Your task to perform on an android device: remove spam from my inbox in the gmail app Image 0: 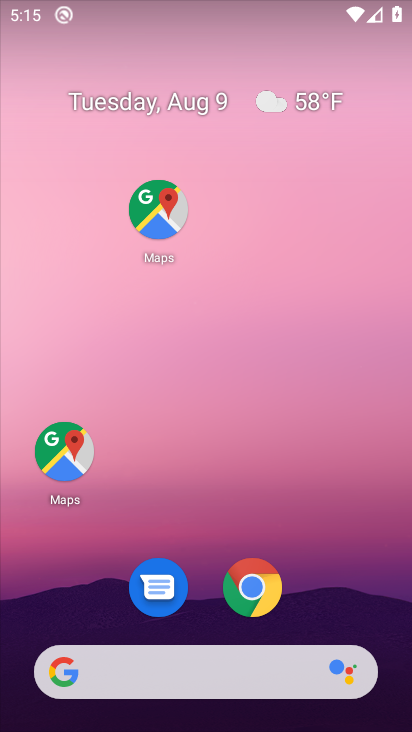
Step 0: drag from (183, 427) to (136, 184)
Your task to perform on an android device: remove spam from my inbox in the gmail app Image 1: 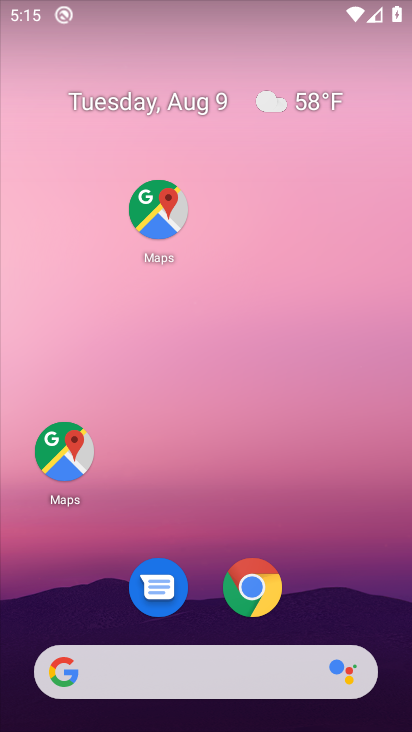
Step 1: drag from (155, 684) to (95, 193)
Your task to perform on an android device: remove spam from my inbox in the gmail app Image 2: 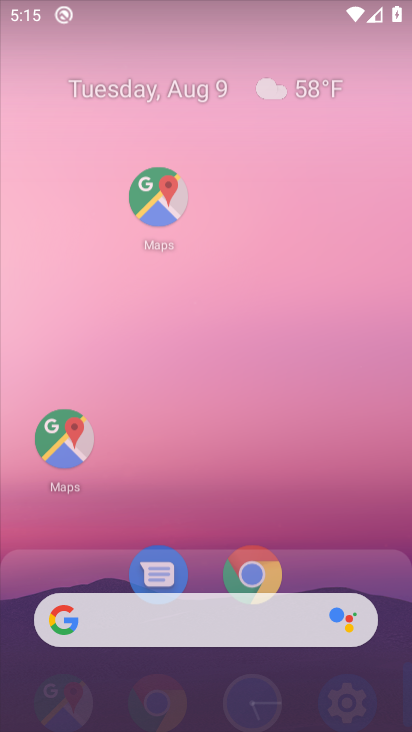
Step 2: drag from (196, 590) to (186, 172)
Your task to perform on an android device: remove spam from my inbox in the gmail app Image 3: 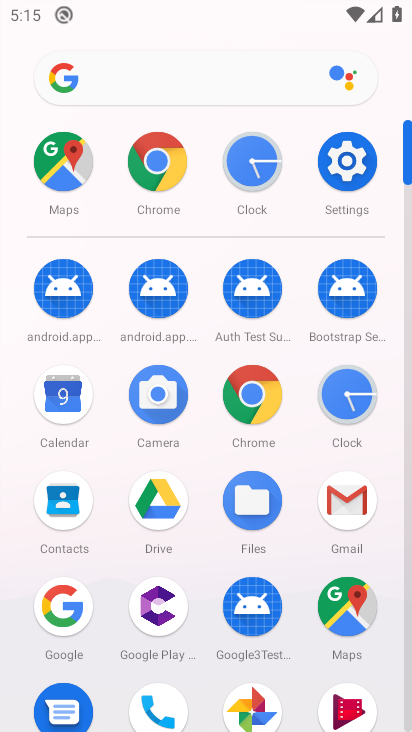
Step 3: click (353, 497)
Your task to perform on an android device: remove spam from my inbox in the gmail app Image 4: 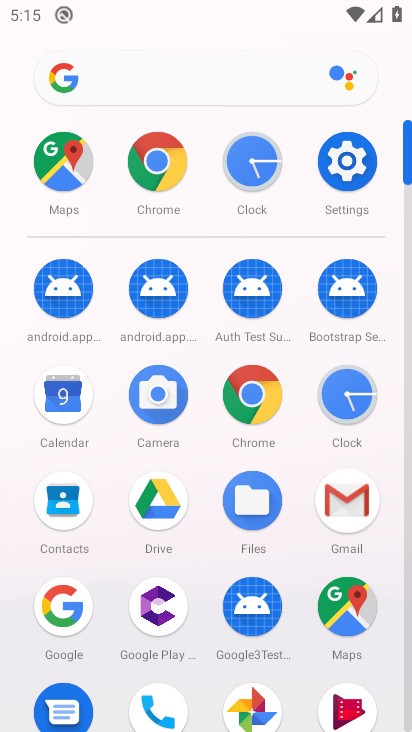
Step 4: click (356, 497)
Your task to perform on an android device: remove spam from my inbox in the gmail app Image 5: 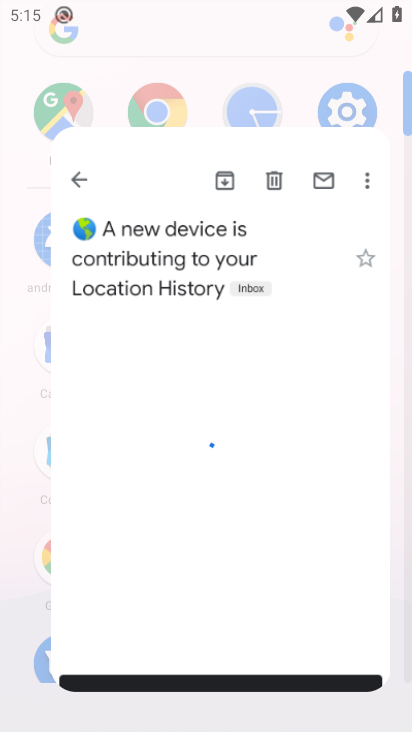
Step 5: click (356, 497)
Your task to perform on an android device: remove spam from my inbox in the gmail app Image 6: 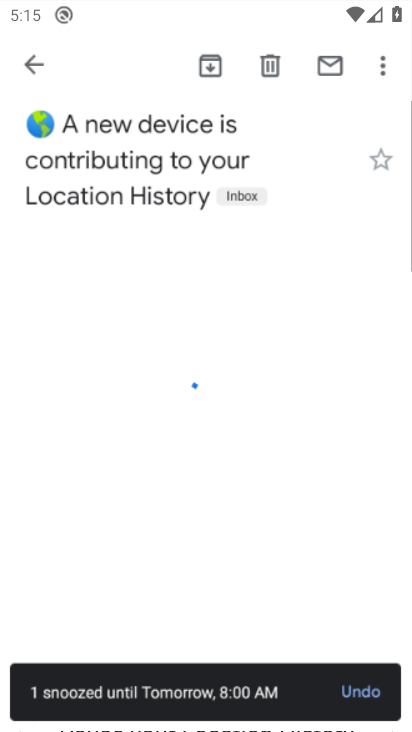
Step 6: click (356, 497)
Your task to perform on an android device: remove spam from my inbox in the gmail app Image 7: 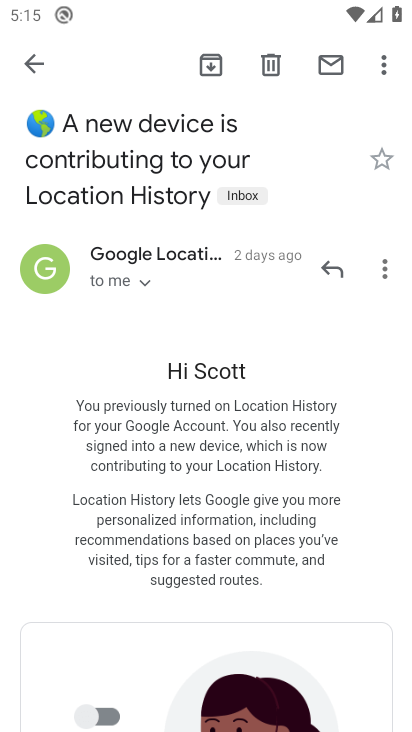
Step 7: click (34, 61)
Your task to perform on an android device: remove spam from my inbox in the gmail app Image 8: 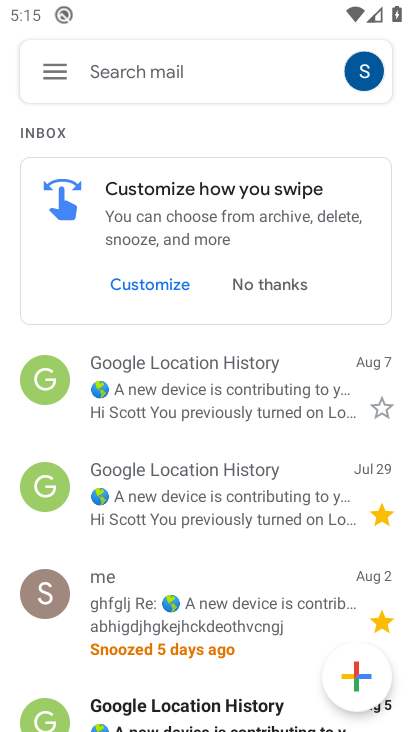
Step 8: click (41, 64)
Your task to perform on an android device: remove spam from my inbox in the gmail app Image 9: 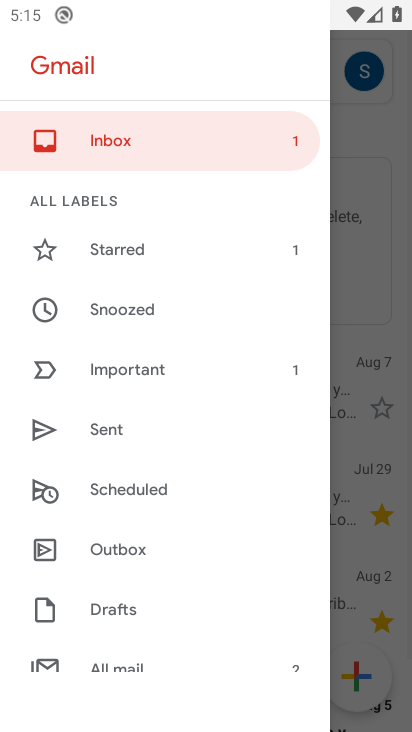
Step 9: drag from (110, 608) to (106, 229)
Your task to perform on an android device: remove spam from my inbox in the gmail app Image 10: 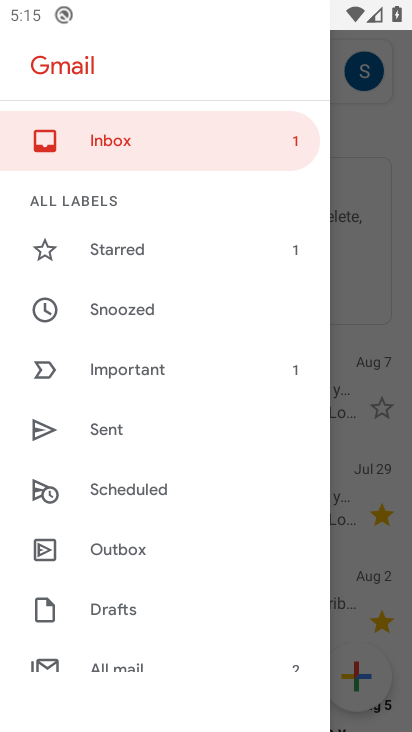
Step 10: drag from (133, 528) to (118, 338)
Your task to perform on an android device: remove spam from my inbox in the gmail app Image 11: 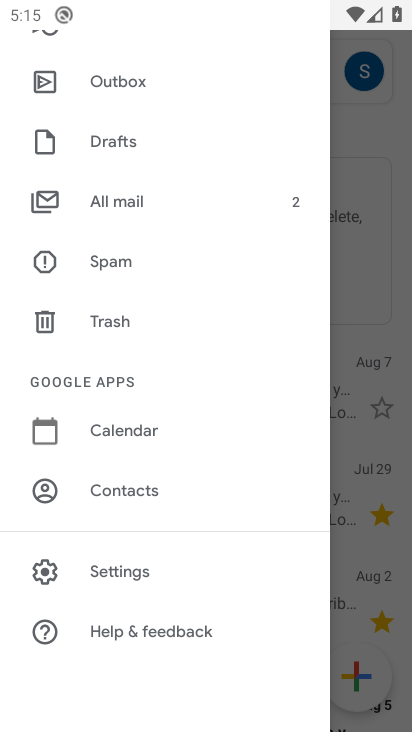
Step 11: click (100, 319)
Your task to perform on an android device: remove spam from my inbox in the gmail app Image 12: 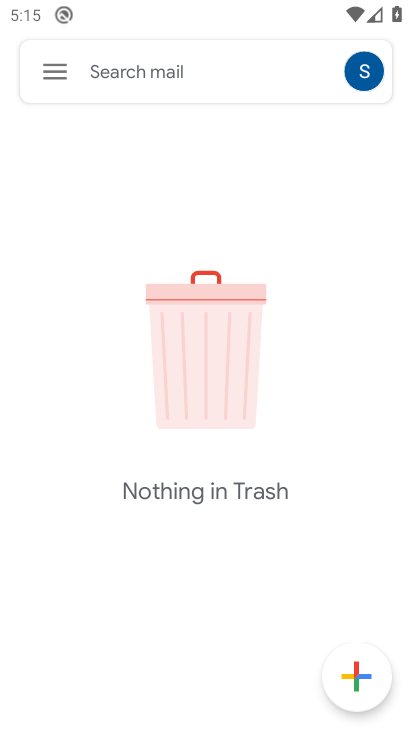
Step 12: click (43, 70)
Your task to perform on an android device: remove spam from my inbox in the gmail app Image 13: 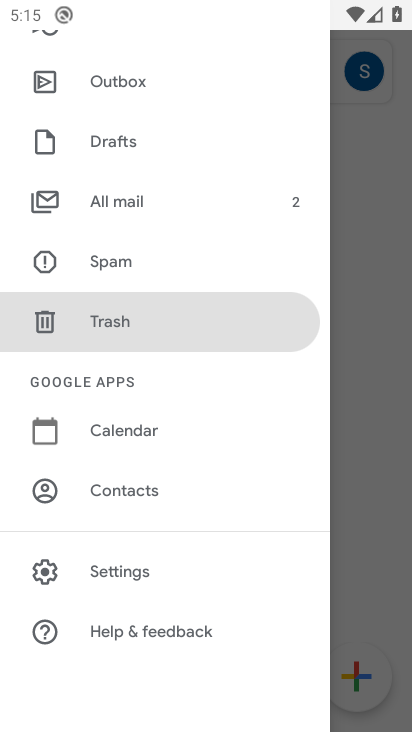
Step 13: click (113, 261)
Your task to perform on an android device: remove spam from my inbox in the gmail app Image 14: 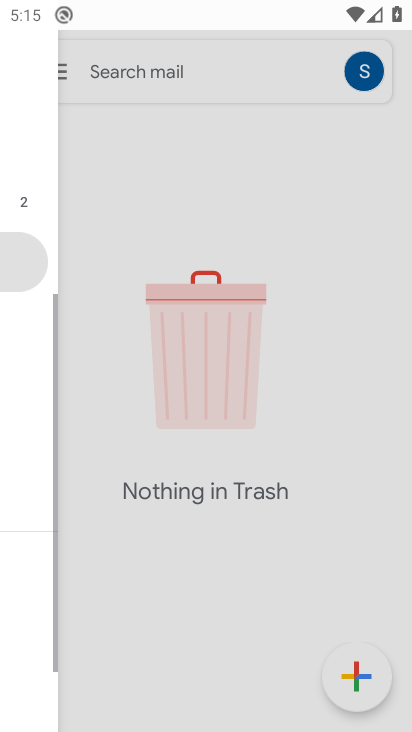
Step 14: click (113, 261)
Your task to perform on an android device: remove spam from my inbox in the gmail app Image 15: 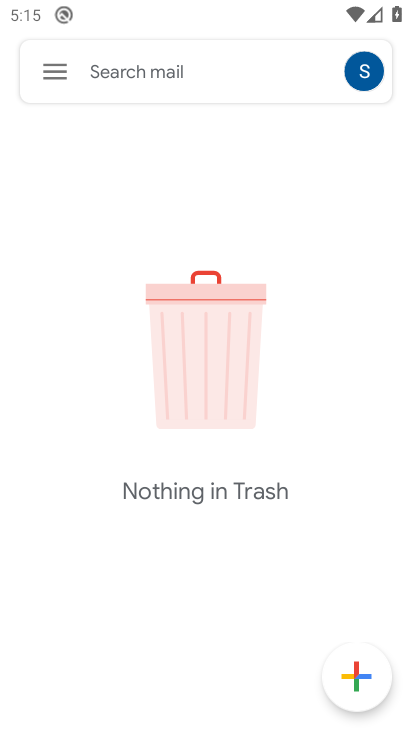
Step 15: click (113, 261)
Your task to perform on an android device: remove spam from my inbox in the gmail app Image 16: 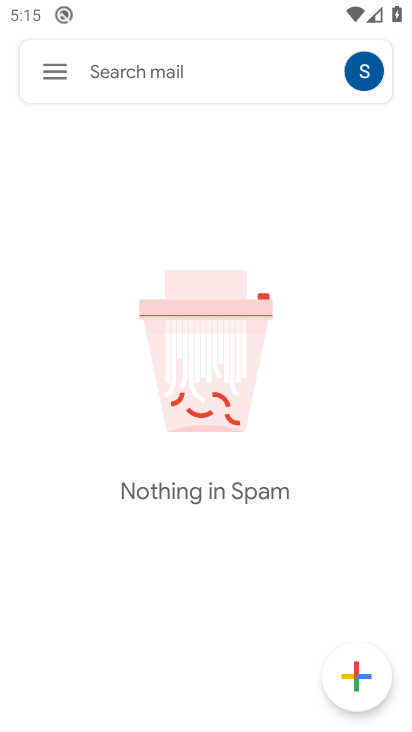
Step 16: task complete